Your task to perform on an android device: Show me recent news Image 0: 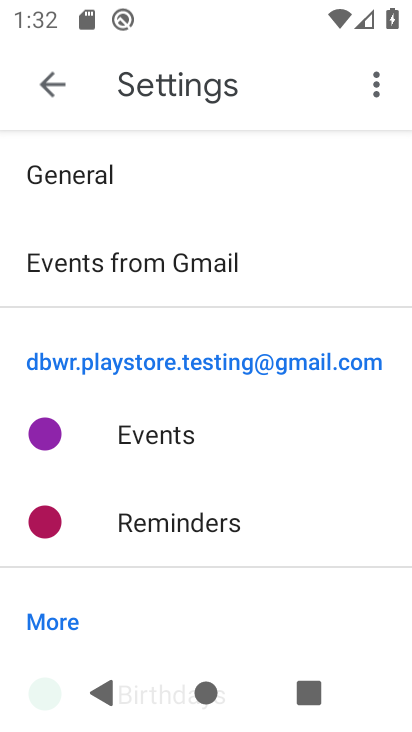
Step 0: press home button
Your task to perform on an android device: Show me recent news Image 1: 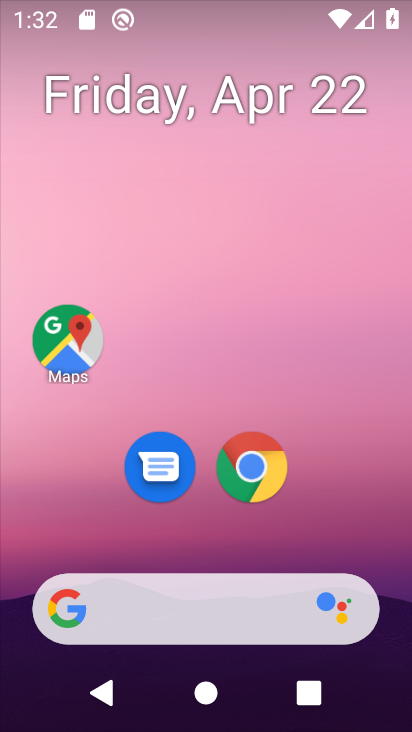
Step 1: drag from (23, 438) to (389, 459)
Your task to perform on an android device: Show me recent news Image 2: 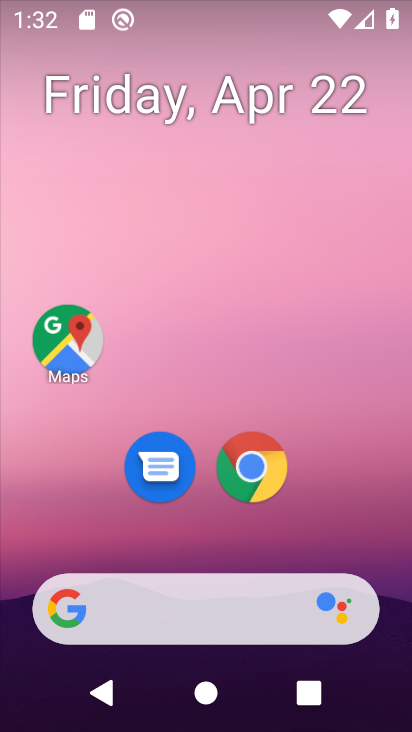
Step 2: drag from (91, 422) to (368, 404)
Your task to perform on an android device: Show me recent news Image 3: 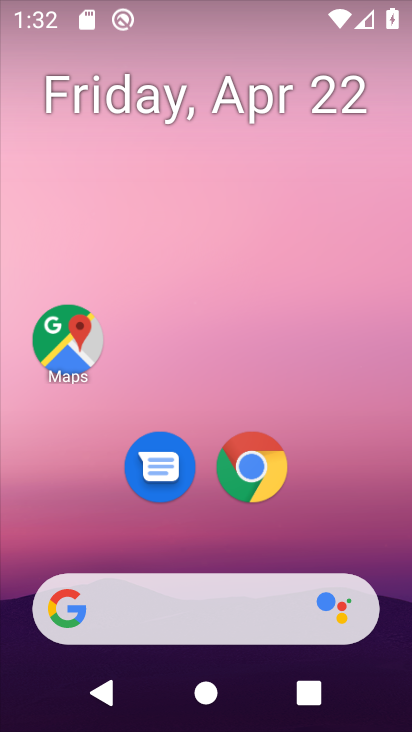
Step 3: drag from (76, 453) to (388, 487)
Your task to perform on an android device: Show me recent news Image 4: 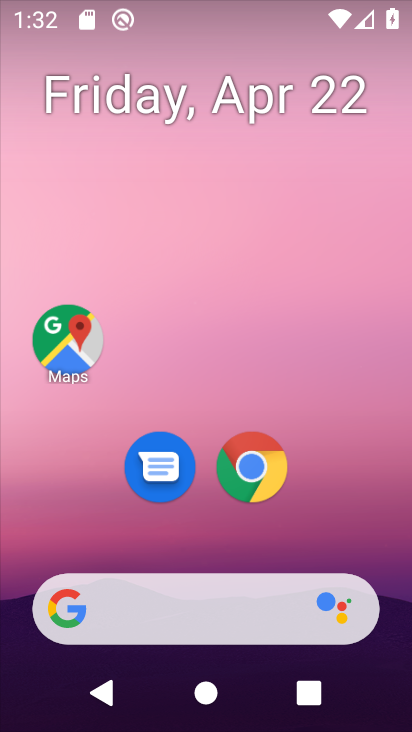
Step 4: drag from (79, 509) to (406, 510)
Your task to perform on an android device: Show me recent news Image 5: 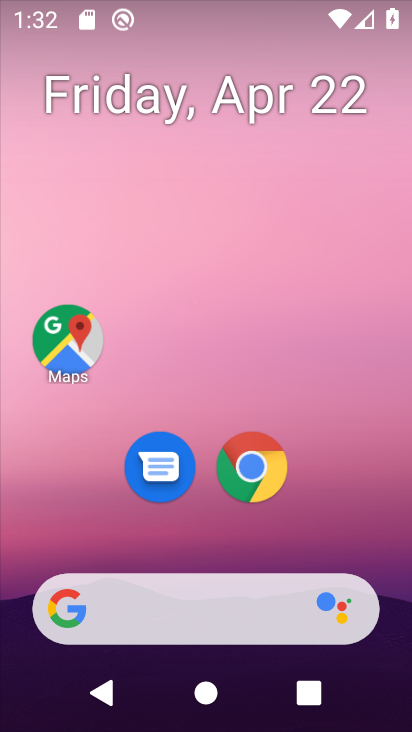
Step 5: drag from (58, 412) to (400, 426)
Your task to perform on an android device: Show me recent news Image 6: 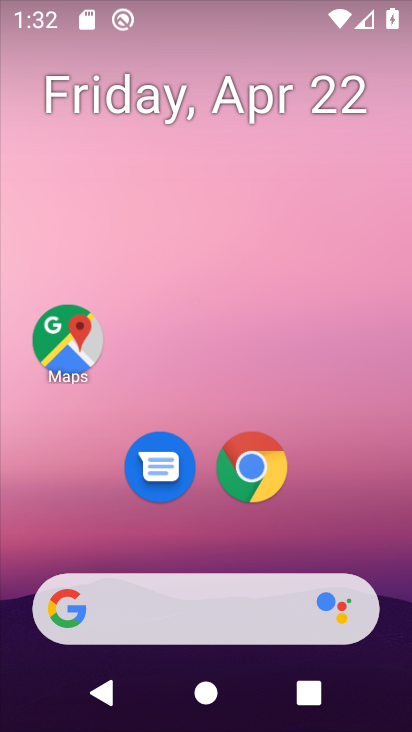
Step 6: drag from (65, 413) to (402, 386)
Your task to perform on an android device: Show me recent news Image 7: 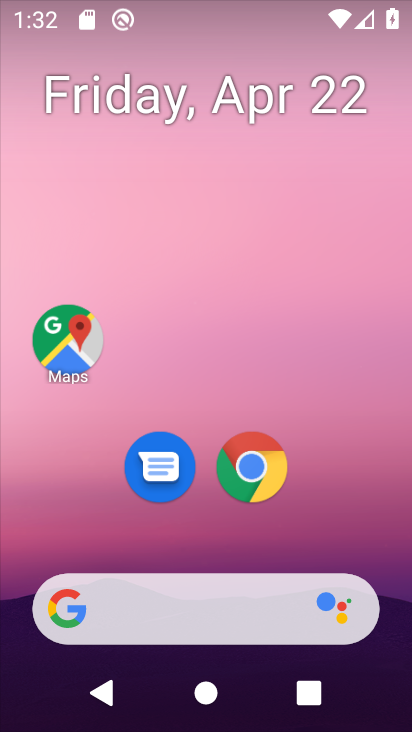
Step 7: drag from (75, 416) to (369, 409)
Your task to perform on an android device: Show me recent news Image 8: 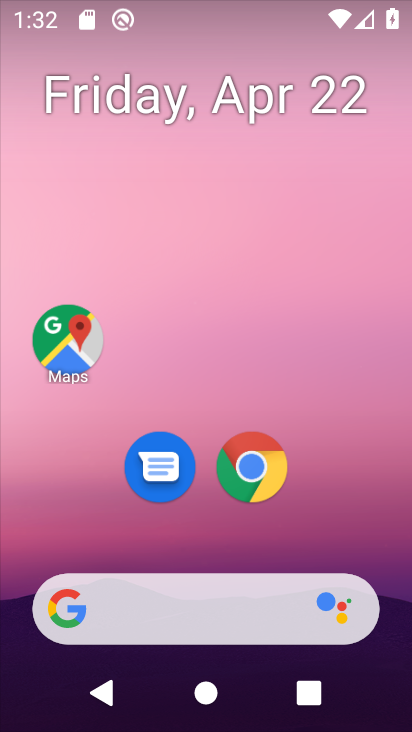
Step 8: drag from (143, 413) to (411, 404)
Your task to perform on an android device: Show me recent news Image 9: 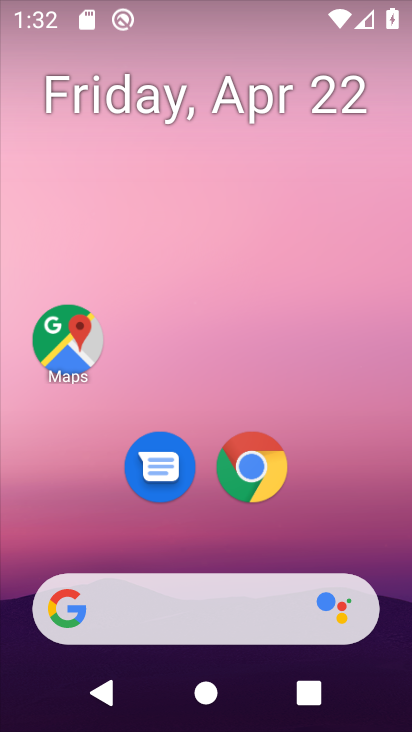
Step 9: drag from (151, 422) to (383, 422)
Your task to perform on an android device: Show me recent news Image 10: 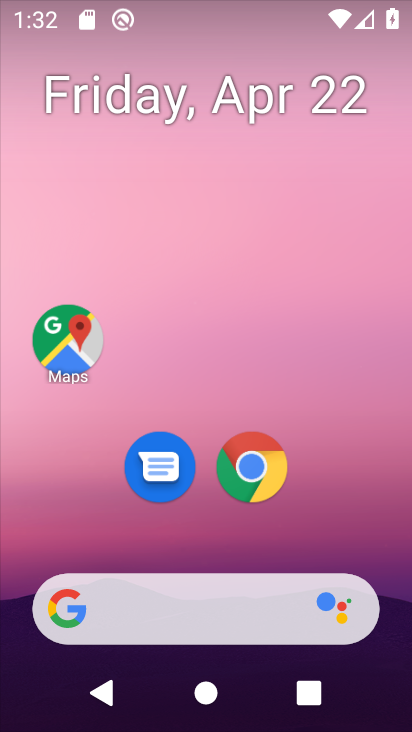
Step 10: drag from (83, 422) to (378, 413)
Your task to perform on an android device: Show me recent news Image 11: 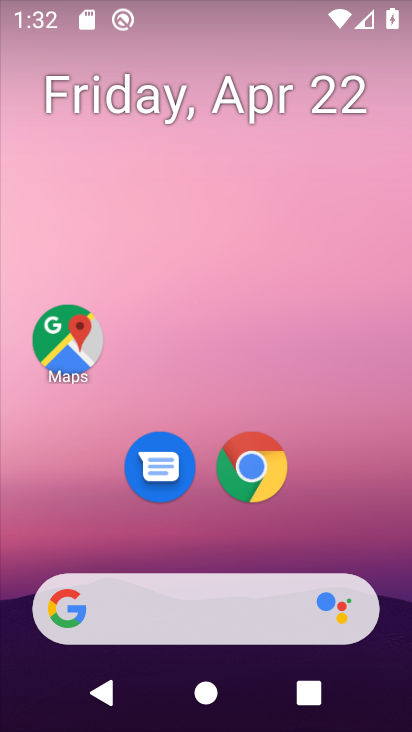
Step 11: drag from (93, 420) to (389, 426)
Your task to perform on an android device: Show me recent news Image 12: 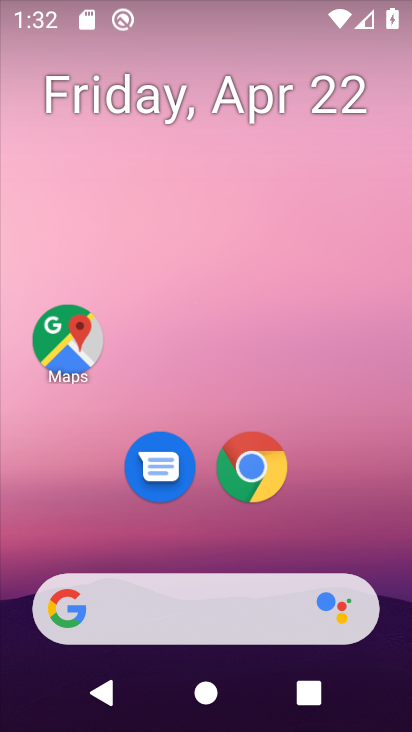
Step 12: drag from (67, 432) to (345, 432)
Your task to perform on an android device: Show me recent news Image 13: 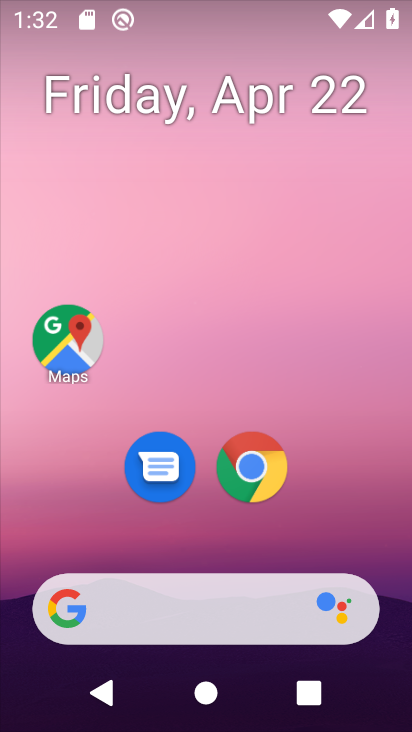
Step 13: drag from (34, 438) to (313, 459)
Your task to perform on an android device: Show me recent news Image 14: 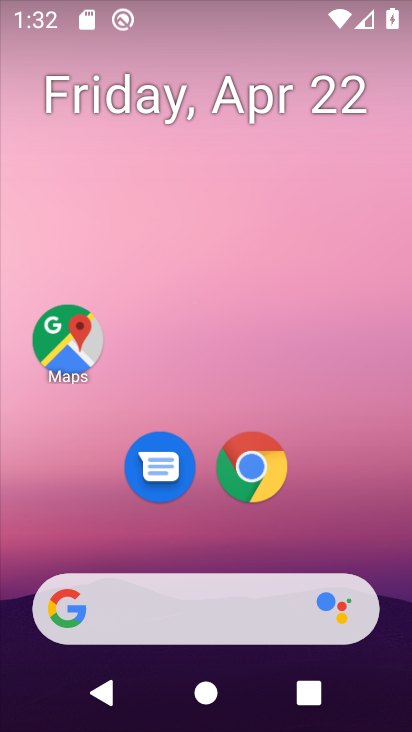
Step 14: drag from (129, 511) to (383, 522)
Your task to perform on an android device: Show me recent news Image 15: 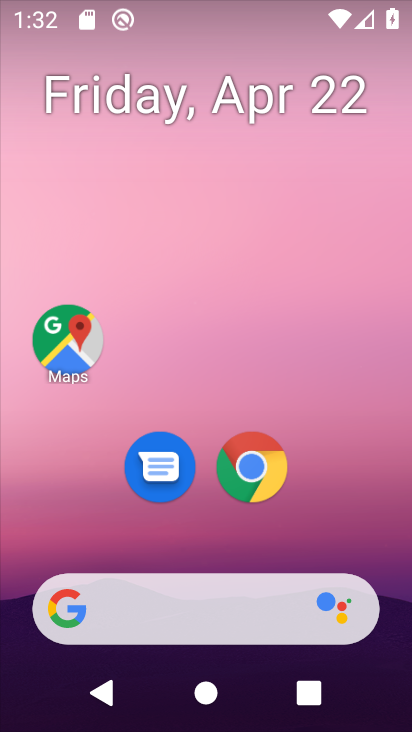
Step 15: drag from (69, 513) to (271, 531)
Your task to perform on an android device: Show me recent news Image 16: 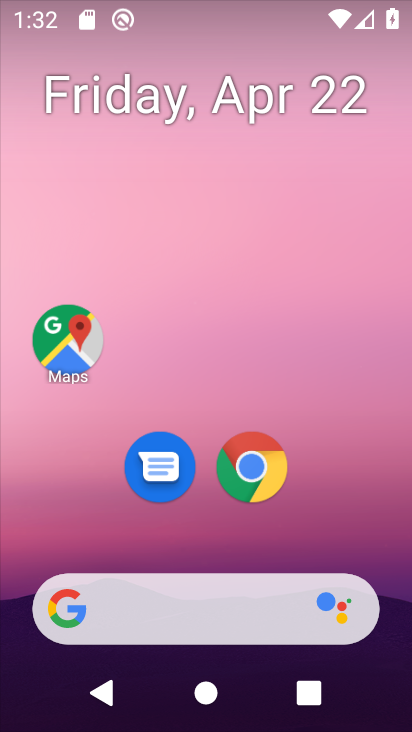
Step 16: drag from (26, 453) to (290, 459)
Your task to perform on an android device: Show me recent news Image 17: 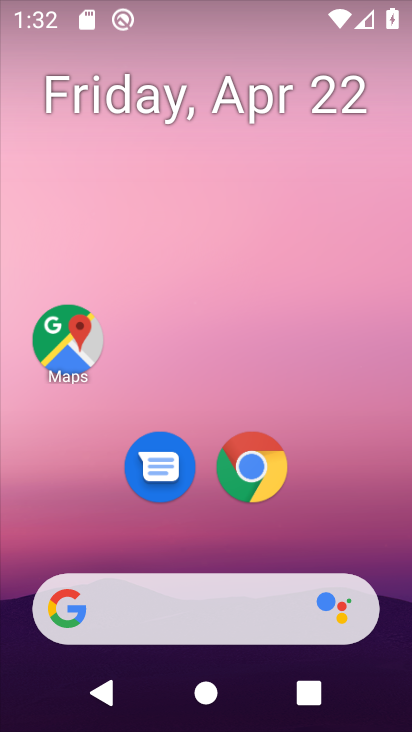
Step 17: click (277, 485)
Your task to perform on an android device: Show me recent news Image 18: 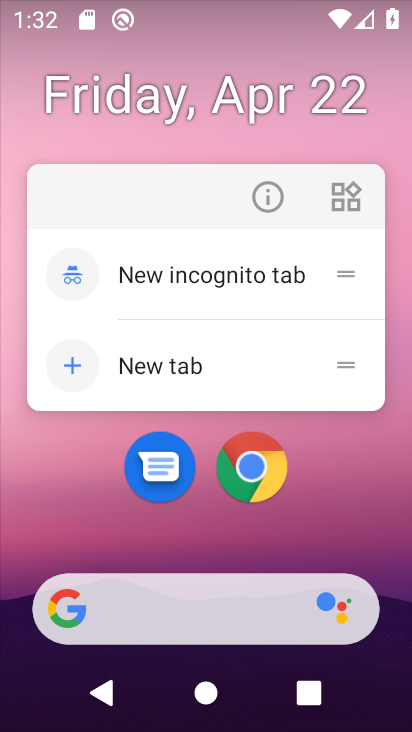
Step 18: click (249, 506)
Your task to perform on an android device: Show me recent news Image 19: 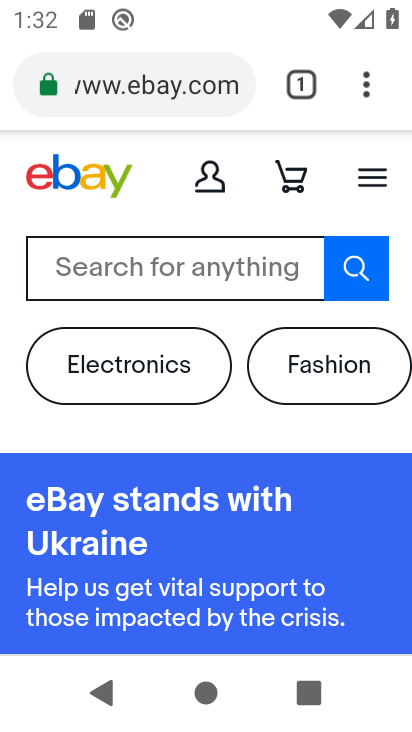
Step 19: click (111, 89)
Your task to perform on an android device: Show me recent news Image 20: 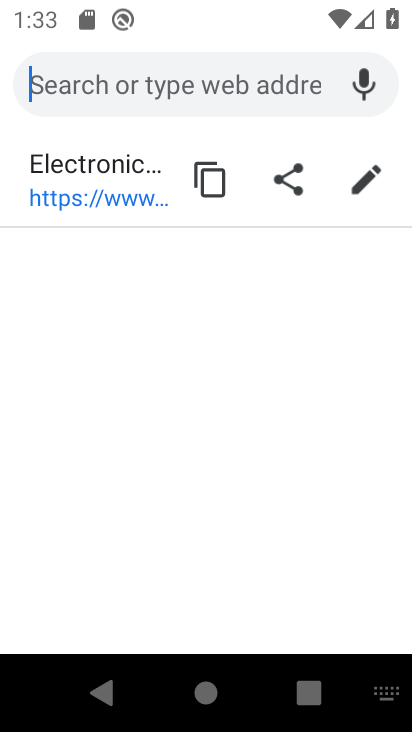
Step 20: click (175, 91)
Your task to perform on an android device: Show me recent news Image 21: 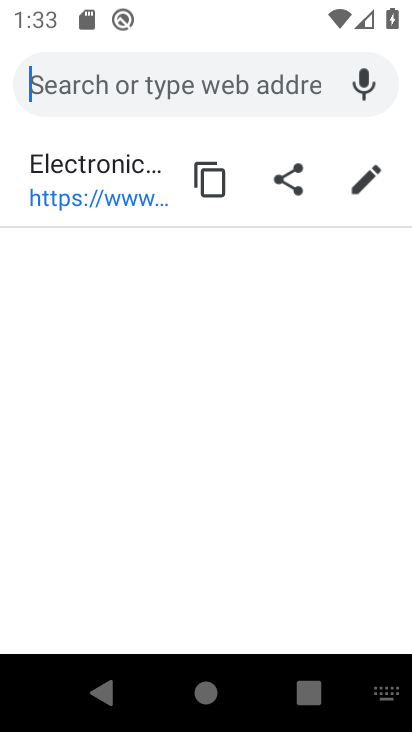
Step 21: type "recent news"
Your task to perform on an android device: Show me recent news Image 22: 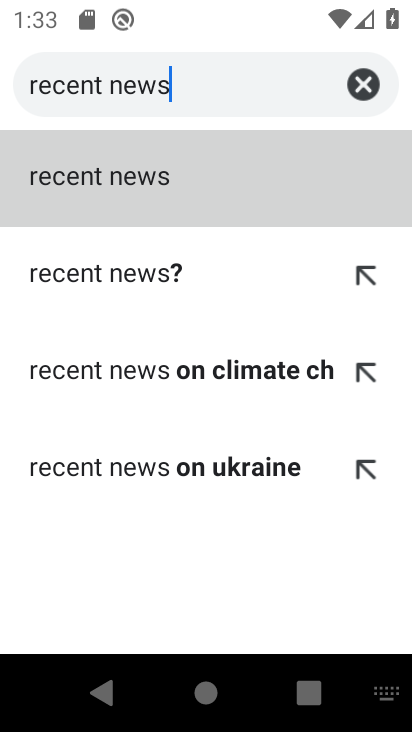
Step 22: click (74, 200)
Your task to perform on an android device: Show me recent news Image 23: 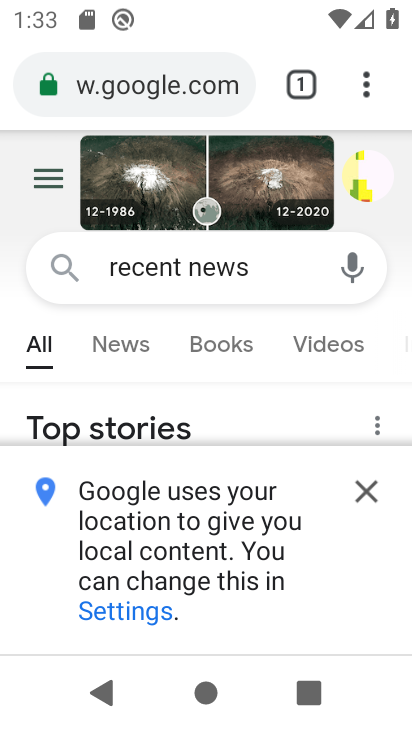
Step 23: task complete